Your task to perform on an android device: Go to notification settings Image 0: 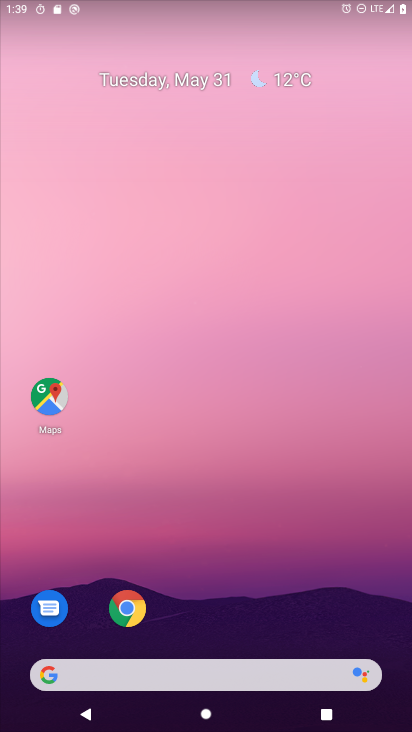
Step 0: drag from (295, 632) to (268, 35)
Your task to perform on an android device: Go to notification settings Image 1: 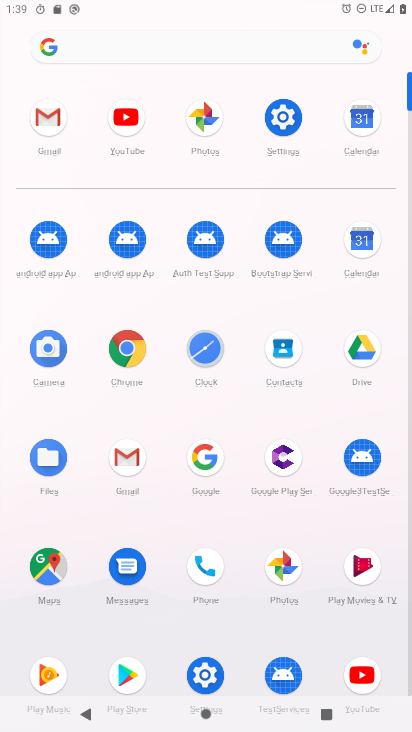
Step 1: click (281, 122)
Your task to perform on an android device: Go to notification settings Image 2: 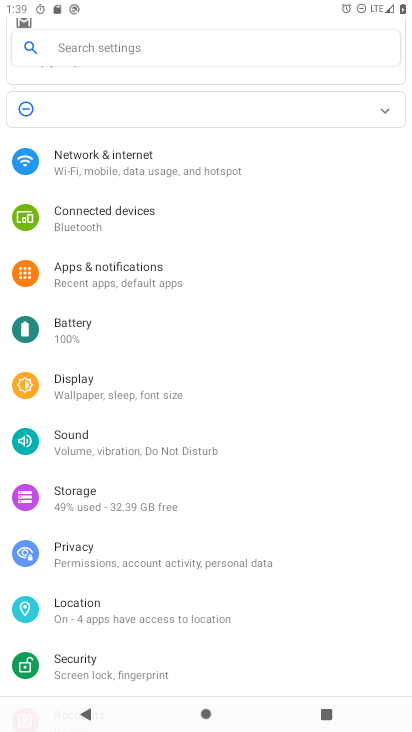
Step 2: click (69, 272)
Your task to perform on an android device: Go to notification settings Image 3: 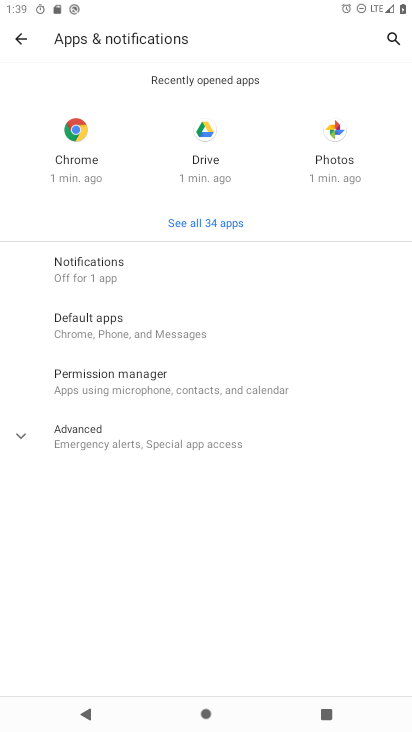
Step 3: click (69, 272)
Your task to perform on an android device: Go to notification settings Image 4: 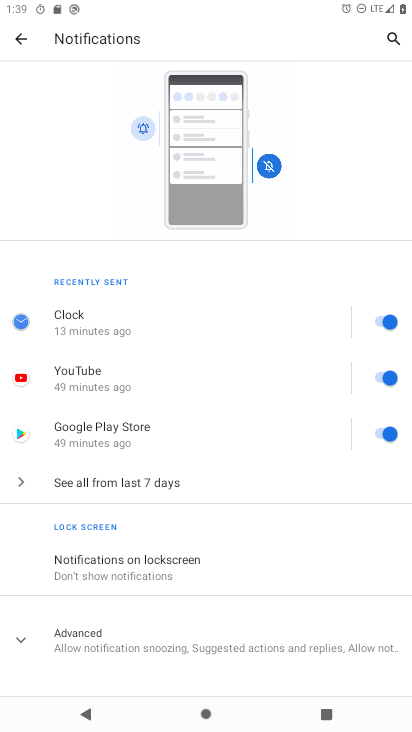
Step 4: drag from (290, 561) to (286, 395)
Your task to perform on an android device: Go to notification settings Image 5: 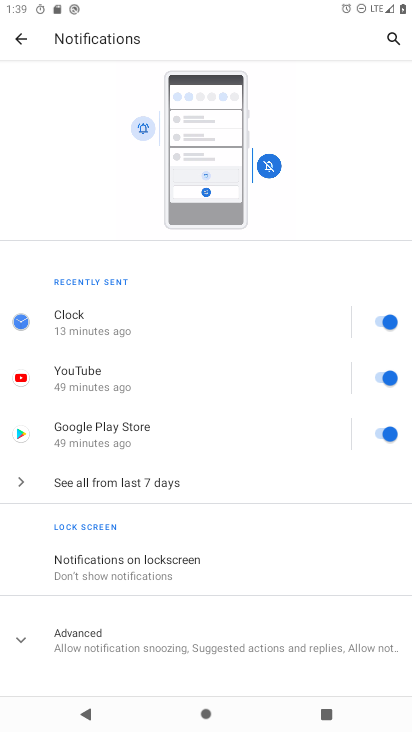
Step 5: click (19, 638)
Your task to perform on an android device: Go to notification settings Image 6: 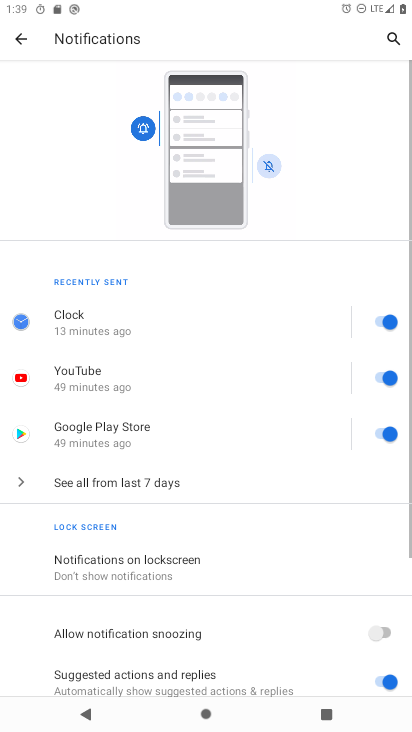
Step 6: task complete